Your task to perform on an android device: set the stopwatch Image 0: 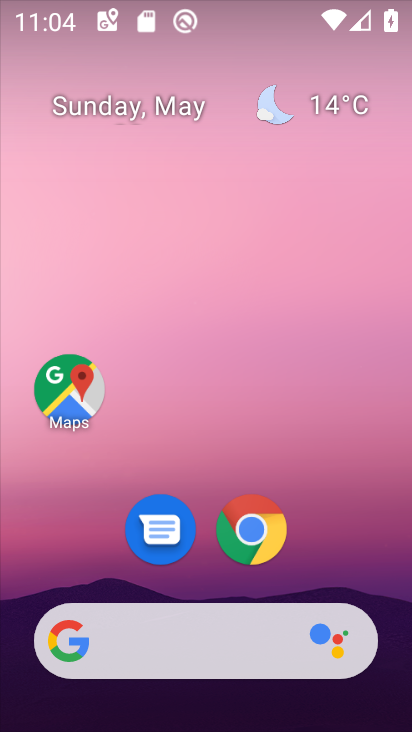
Step 0: drag from (228, 643) to (250, 91)
Your task to perform on an android device: set the stopwatch Image 1: 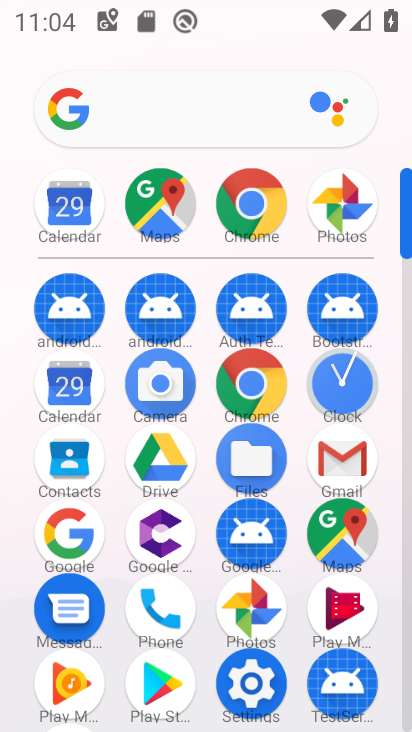
Step 1: click (336, 395)
Your task to perform on an android device: set the stopwatch Image 2: 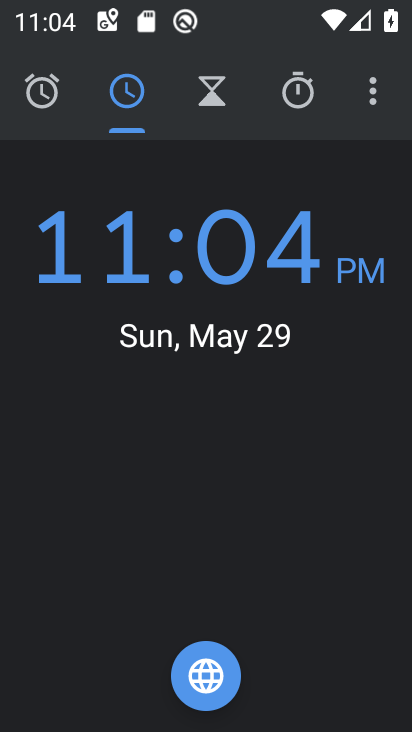
Step 2: click (336, 395)
Your task to perform on an android device: set the stopwatch Image 3: 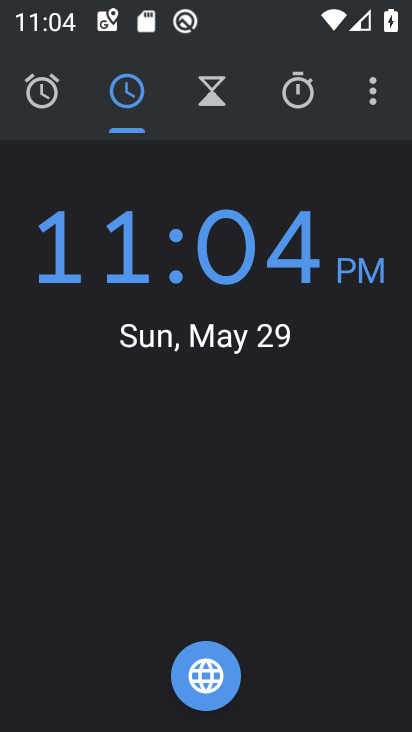
Step 3: click (296, 116)
Your task to perform on an android device: set the stopwatch Image 4: 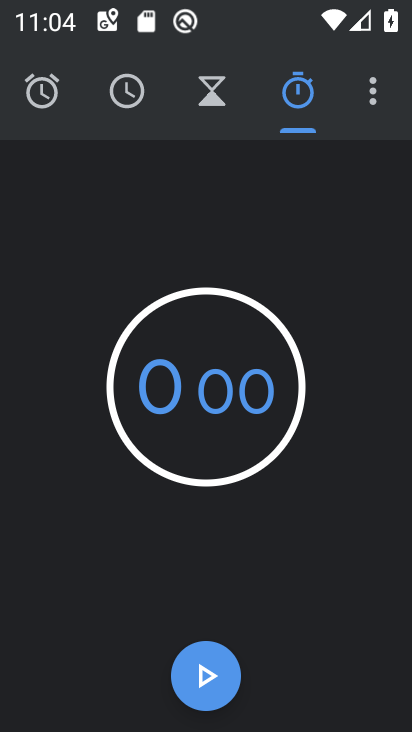
Step 4: click (194, 667)
Your task to perform on an android device: set the stopwatch Image 5: 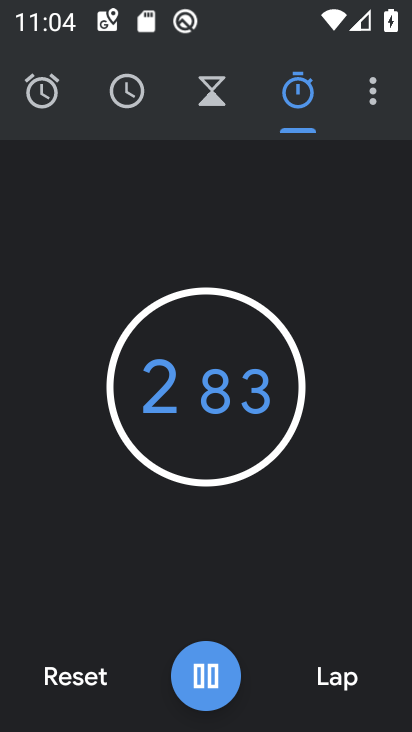
Step 5: task complete